Your task to perform on an android device: Go to internet settings Image 0: 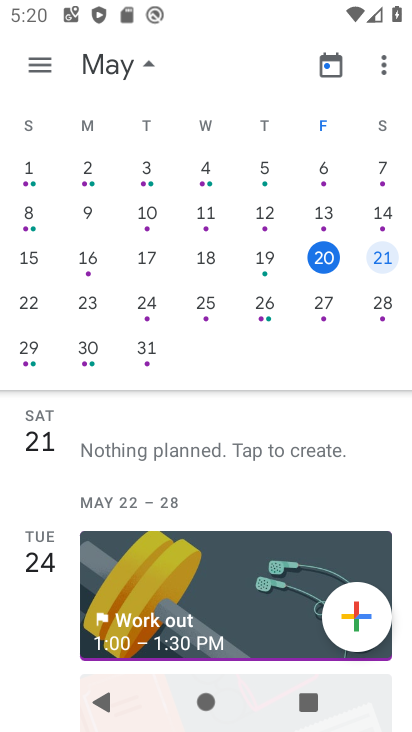
Step 0: press home button
Your task to perform on an android device: Go to internet settings Image 1: 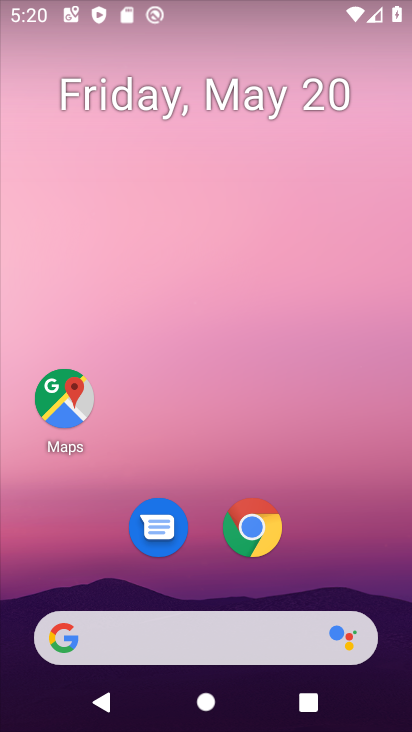
Step 1: drag from (314, 629) to (287, 47)
Your task to perform on an android device: Go to internet settings Image 2: 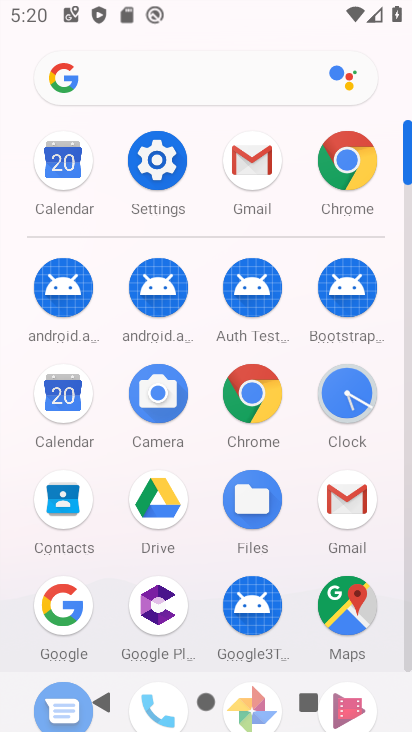
Step 2: click (155, 147)
Your task to perform on an android device: Go to internet settings Image 3: 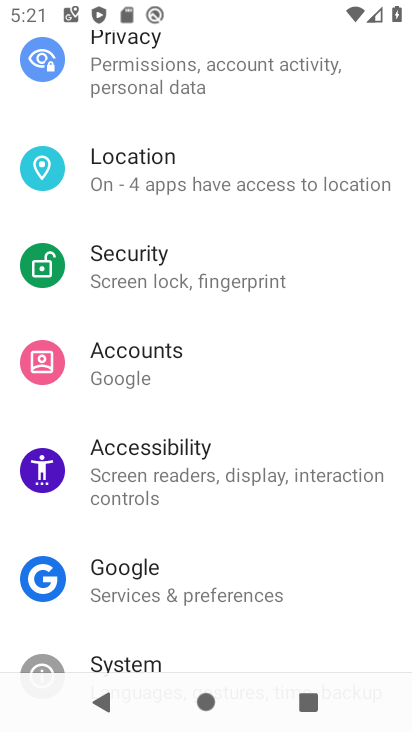
Step 3: drag from (180, 212) to (265, 602)
Your task to perform on an android device: Go to internet settings Image 4: 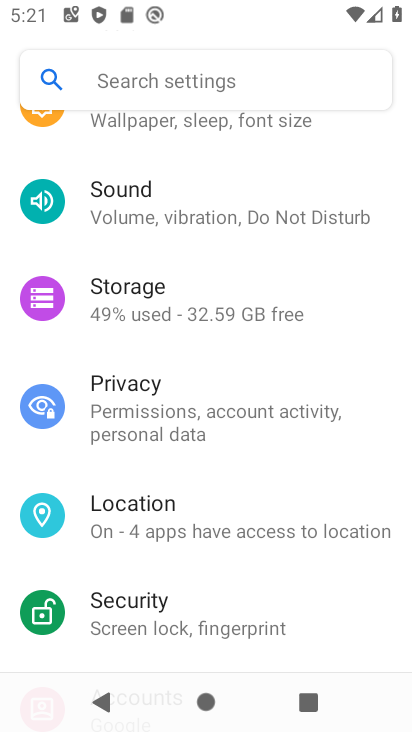
Step 4: drag from (210, 239) to (261, 722)
Your task to perform on an android device: Go to internet settings Image 5: 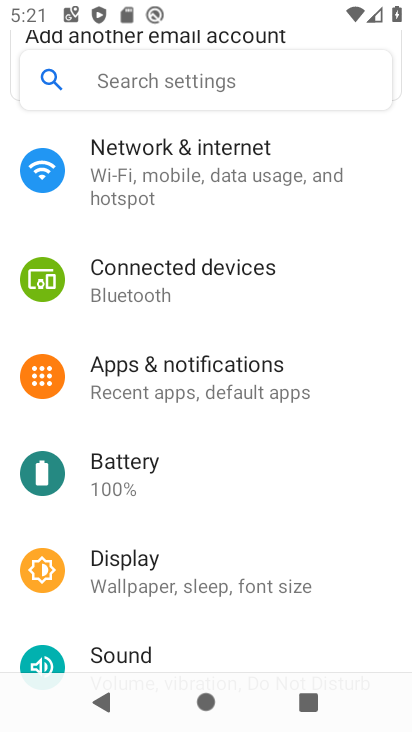
Step 5: click (215, 180)
Your task to perform on an android device: Go to internet settings Image 6: 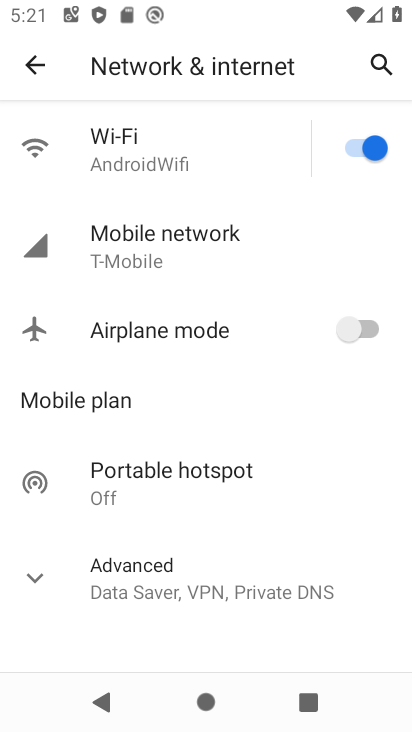
Step 6: task complete